Your task to perform on an android device: Go to Google maps Image 0: 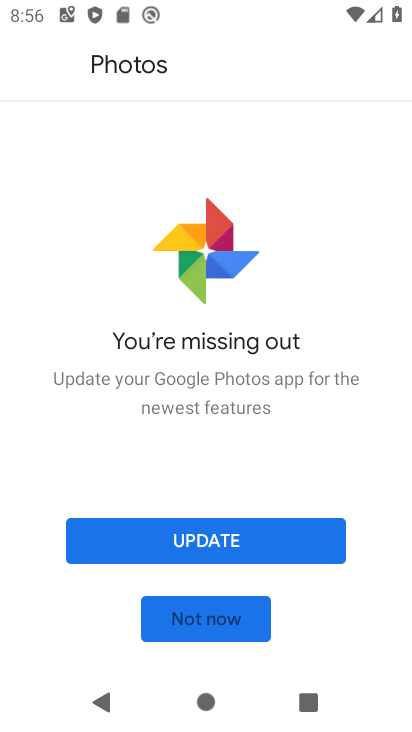
Step 0: press home button
Your task to perform on an android device: Go to Google maps Image 1: 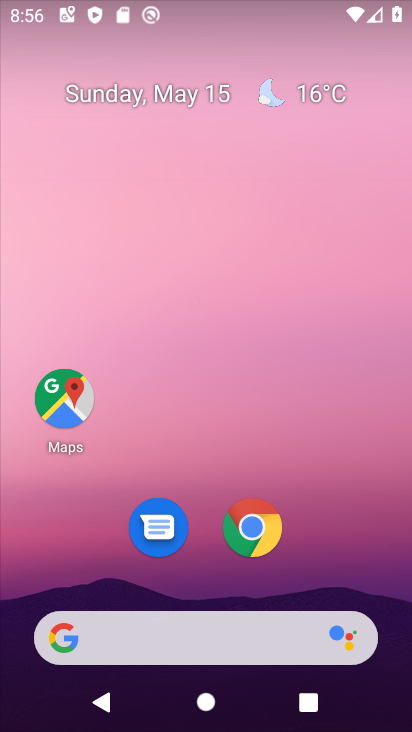
Step 1: click (66, 407)
Your task to perform on an android device: Go to Google maps Image 2: 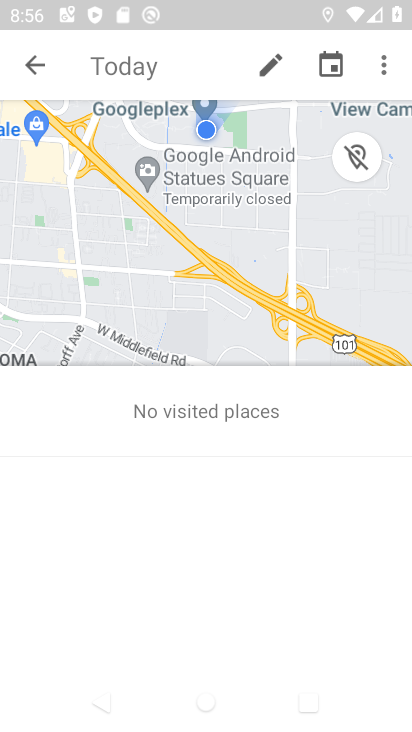
Step 2: task complete